Your task to perform on an android device: open a new tab in the chrome app Image 0: 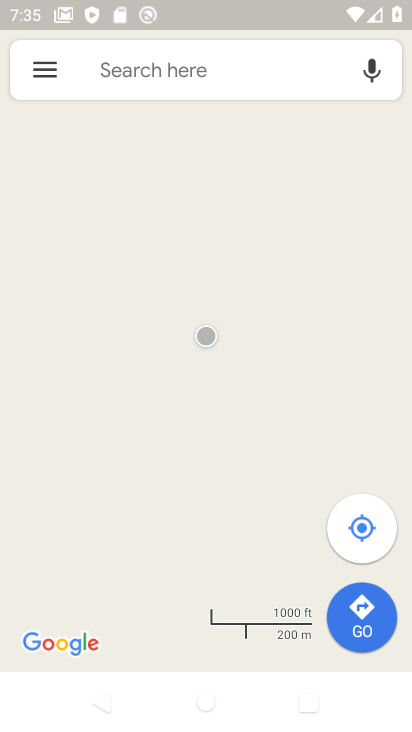
Step 0: press home button
Your task to perform on an android device: open a new tab in the chrome app Image 1: 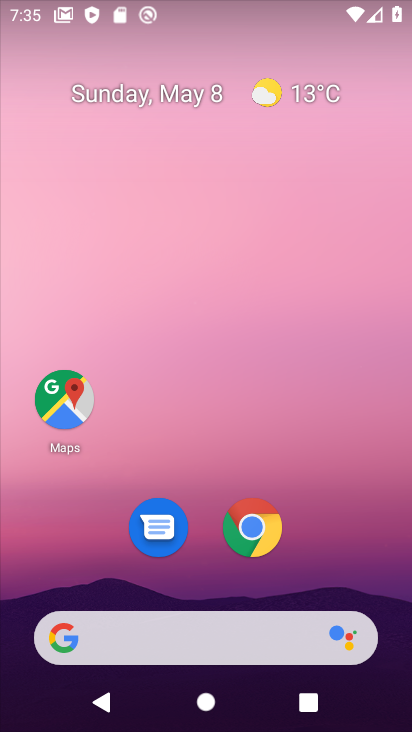
Step 1: click (258, 540)
Your task to perform on an android device: open a new tab in the chrome app Image 2: 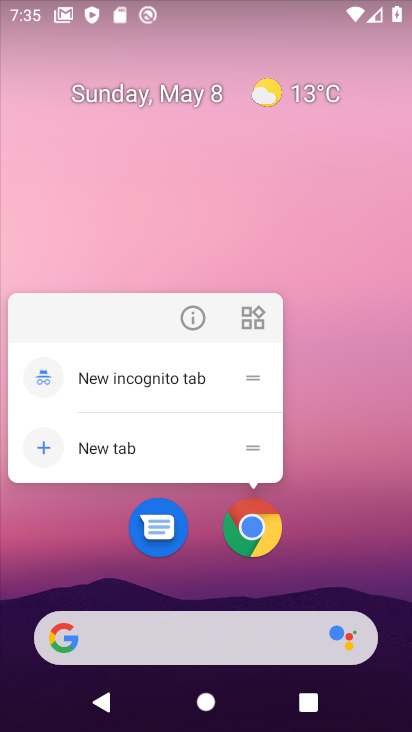
Step 2: click (258, 540)
Your task to perform on an android device: open a new tab in the chrome app Image 3: 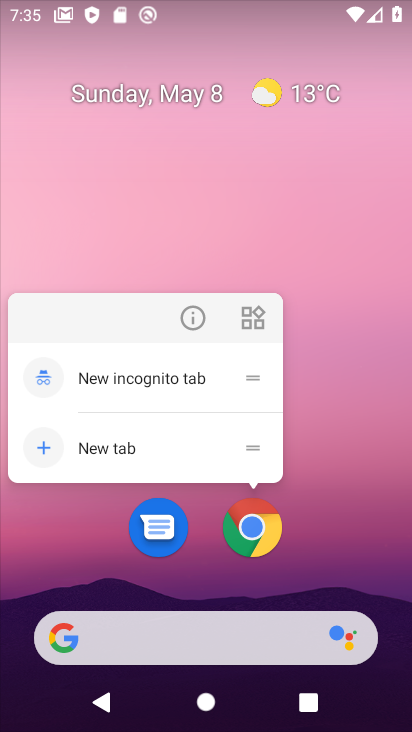
Step 3: click (316, 587)
Your task to perform on an android device: open a new tab in the chrome app Image 4: 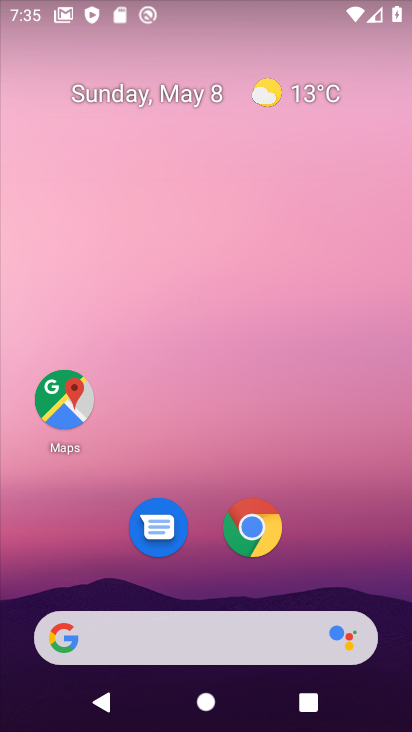
Step 4: drag from (317, 579) to (303, 40)
Your task to perform on an android device: open a new tab in the chrome app Image 5: 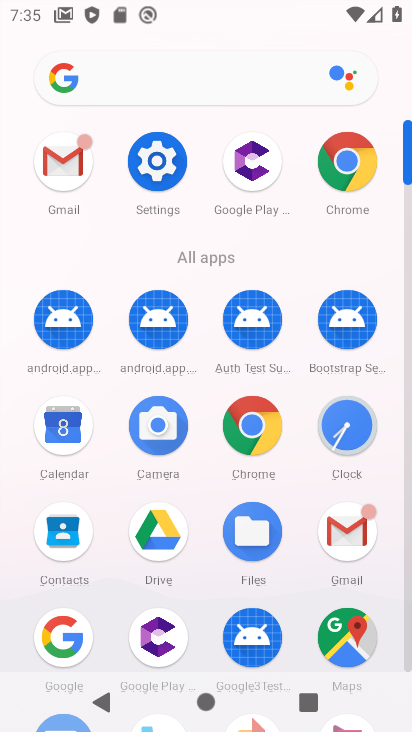
Step 5: click (357, 159)
Your task to perform on an android device: open a new tab in the chrome app Image 6: 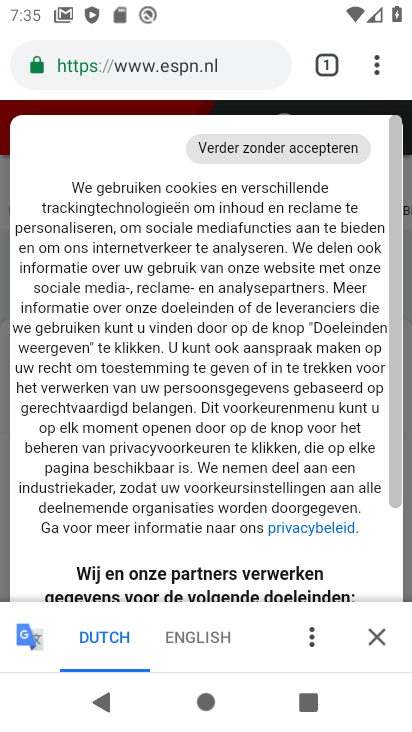
Step 6: task complete